Your task to perform on an android device: Open the phone app and click the voicemail tab. Image 0: 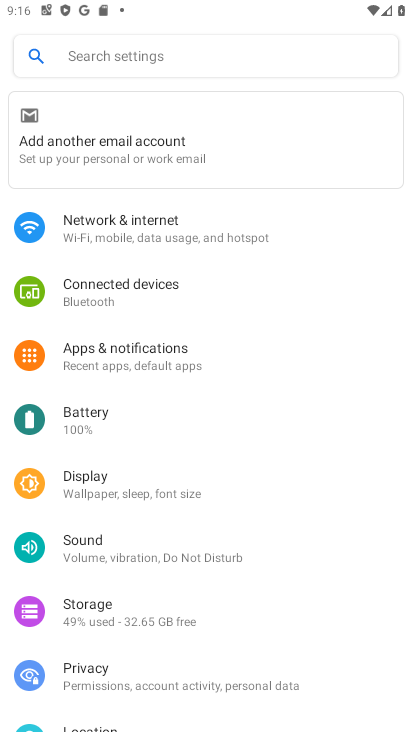
Step 0: press home button
Your task to perform on an android device: Open the phone app and click the voicemail tab. Image 1: 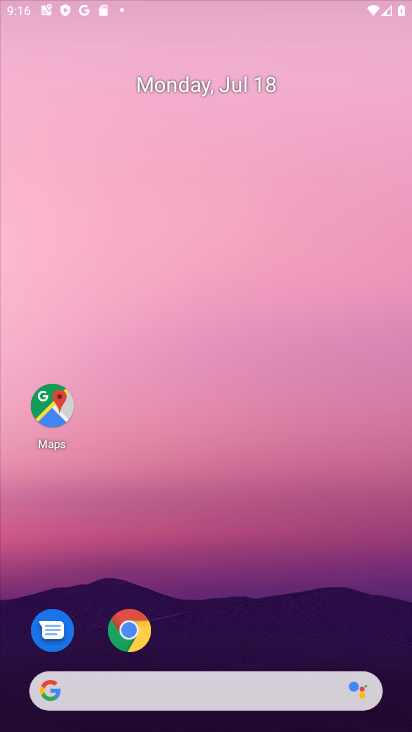
Step 1: drag from (399, 667) to (196, 76)
Your task to perform on an android device: Open the phone app and click the voicemail tab. Image 2: 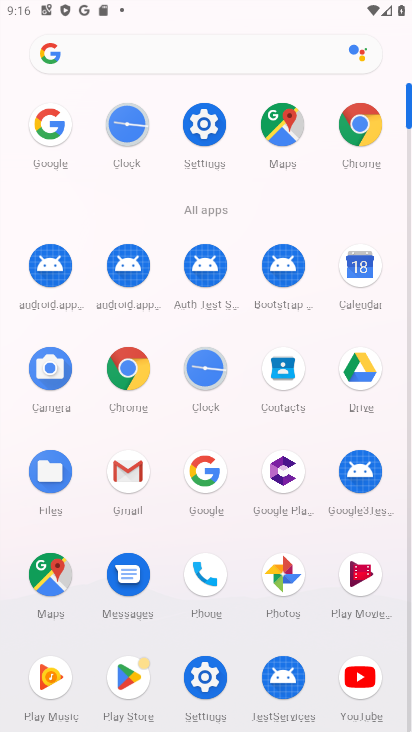
Step 2: click (193, 564)
Your task to perform on an android device: Open the phone app and click the voicemail tab. Image 3: 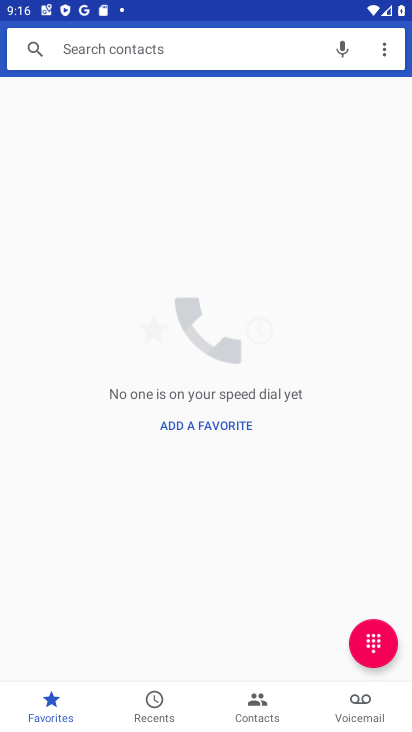
Step 3: click (359, 695)
Your task to perform on an android device: Open the phone app and click the voicemail tab. Image 4: 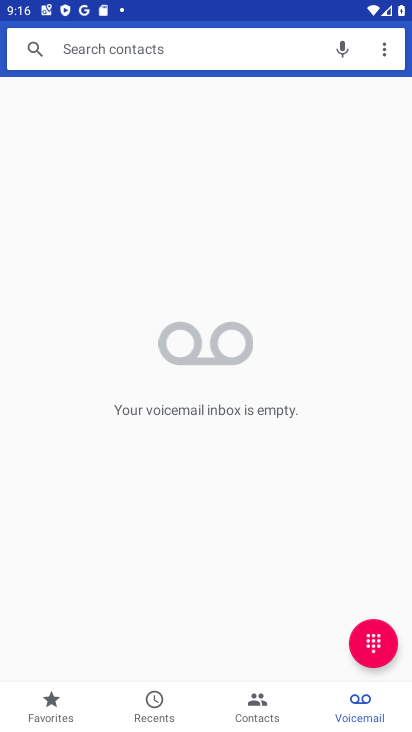
Step 4: task complete